Your task to perform on an android device: Open accessibility settings Image 0: 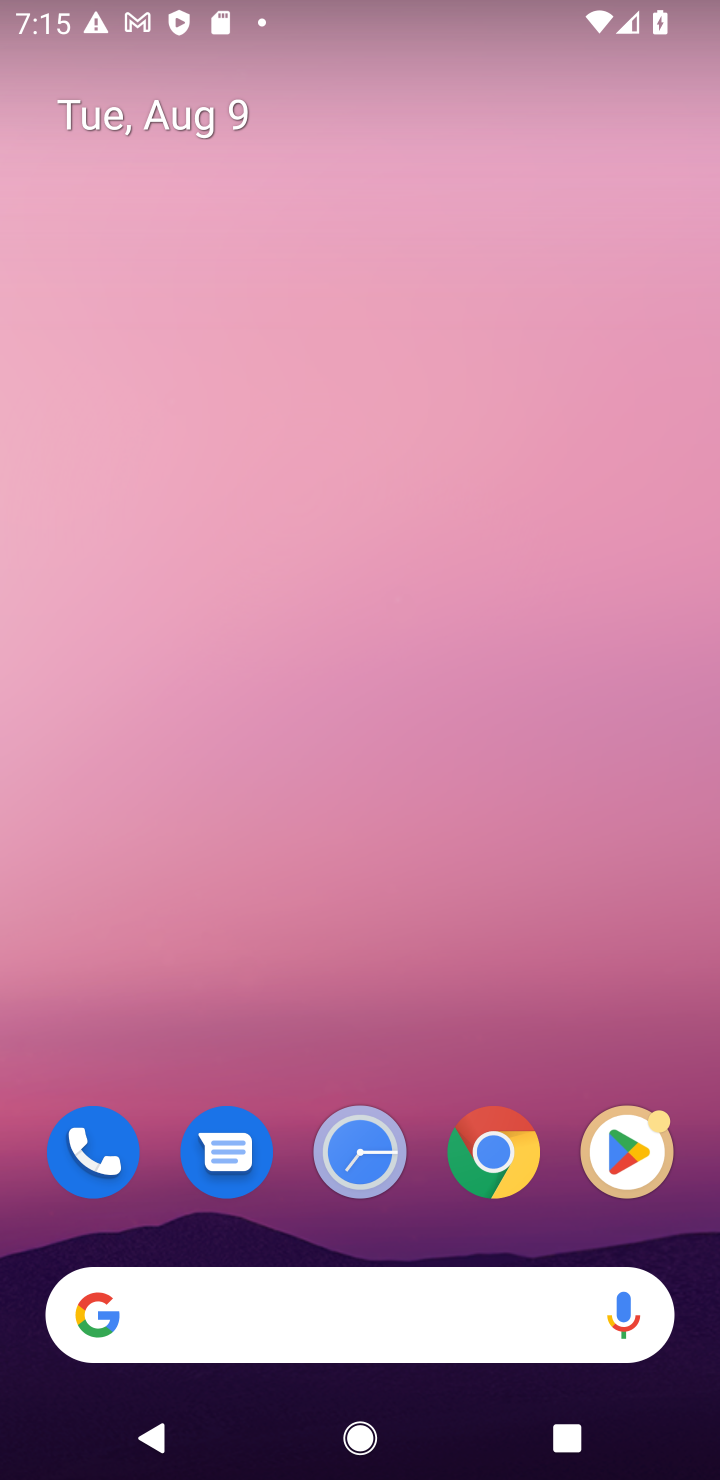
Step 0: drag from (350, 1067) to (308, 3)
Your task to perform on an android device: Open accessibility settings Image 1: 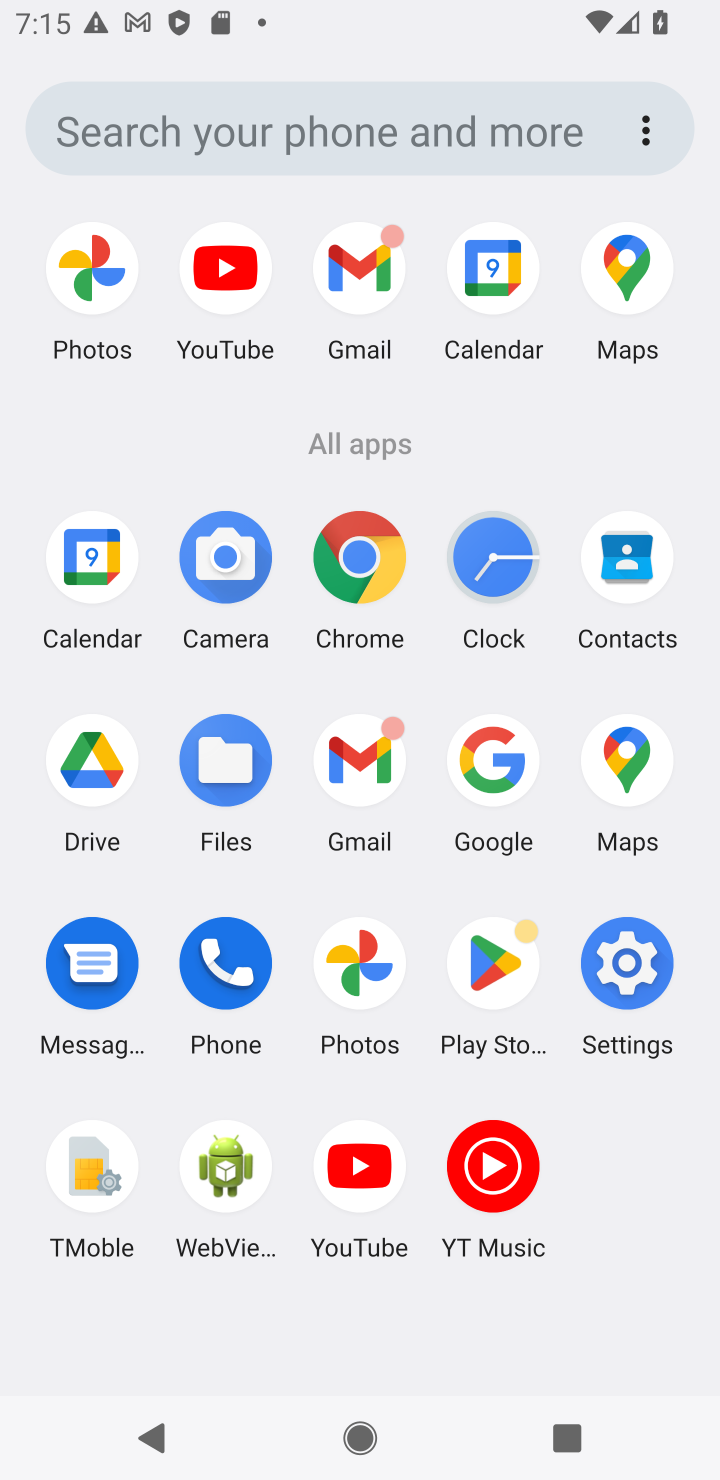
Step 1: click (591, 974)
Your task to perform on an android device: Open accessibility settings Image 2: 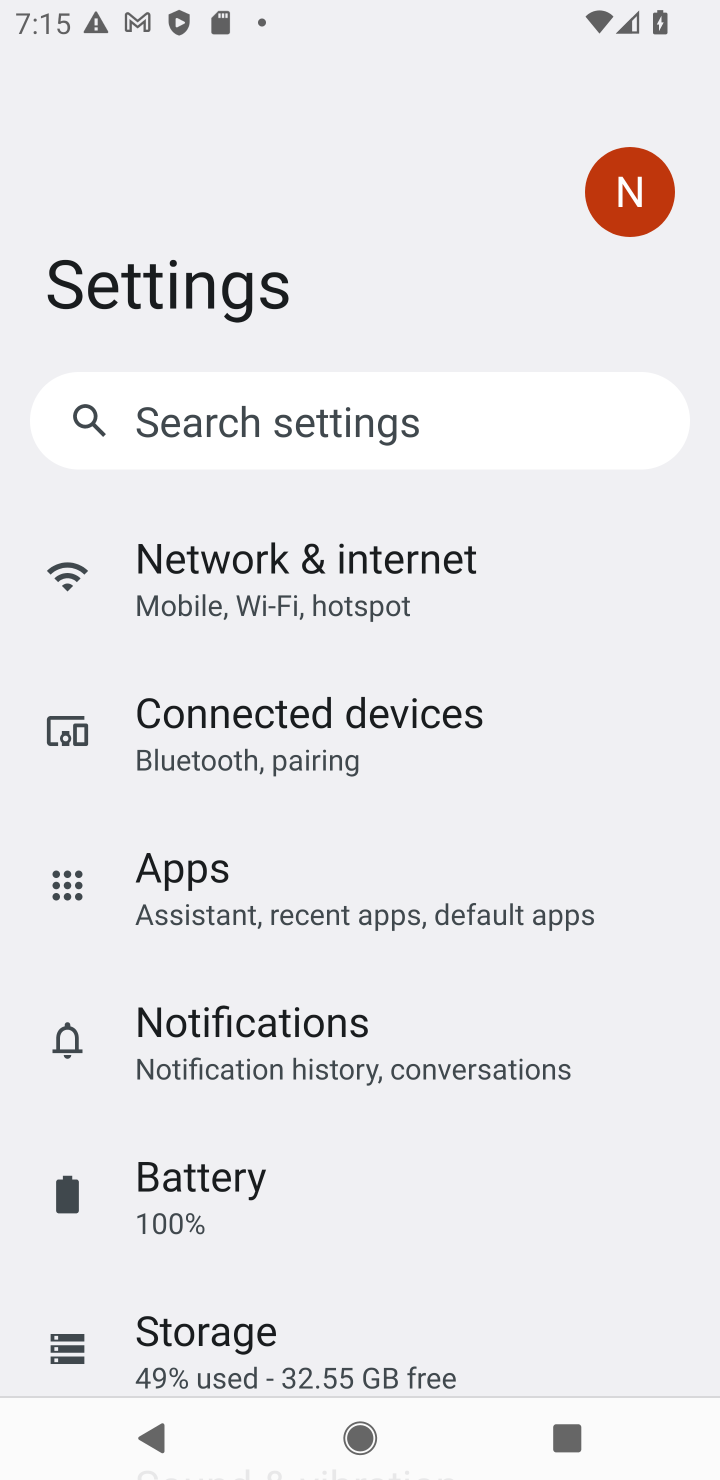
Step 2: drag from (287, 1206) to (337, 359)
Your task to perform on an android device: Open accessibility settings Image 3: 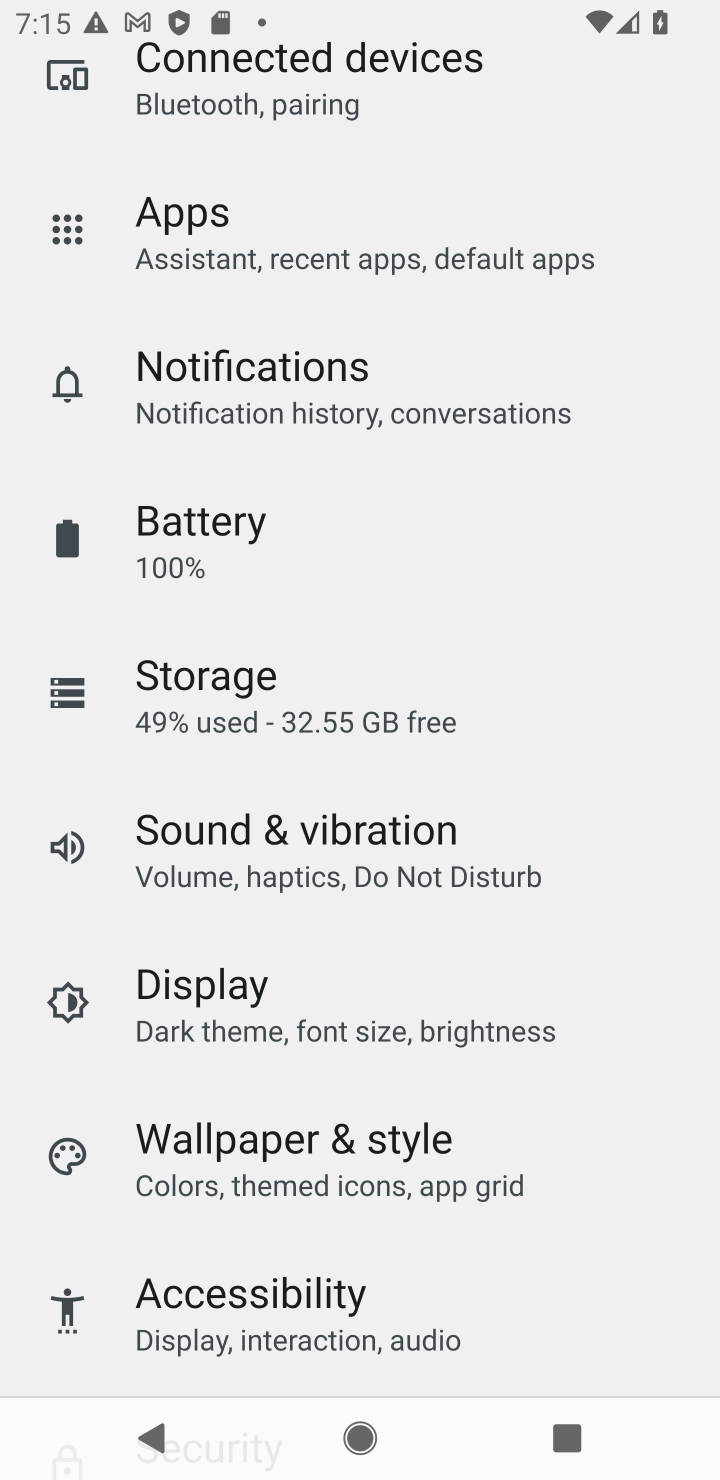
Step 3: click (115, 1300)
Your task to perform on an android device: Open accessibility settings Image 4: 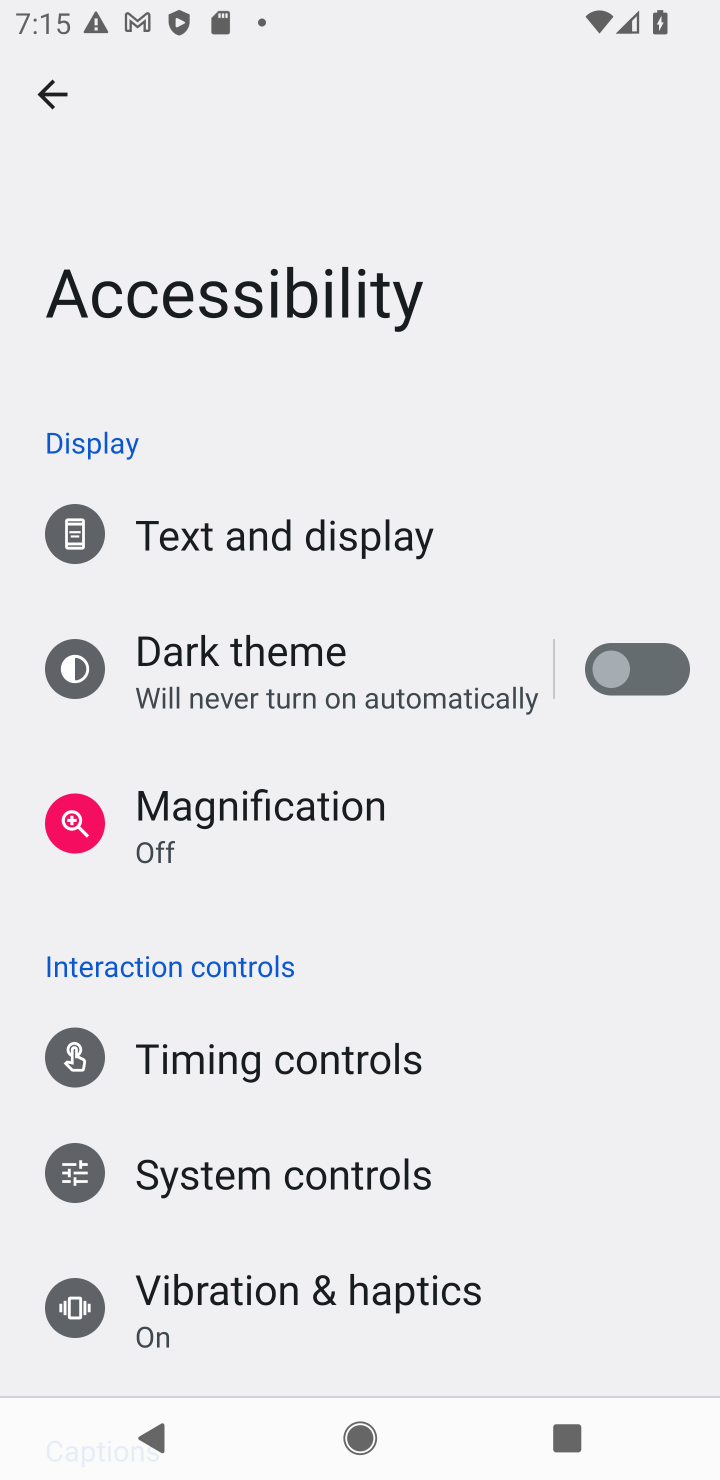
Step 4: task complete